Your task to perform on an android device: change the upload size in google photos Image 0: 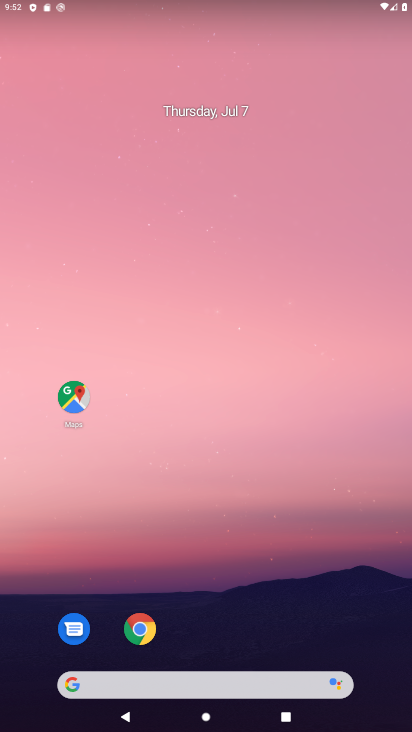
Step 0: drag from (335, 635) to (313, 39)
Your task to perform on an android device: change the upload size in google photos Image 1: 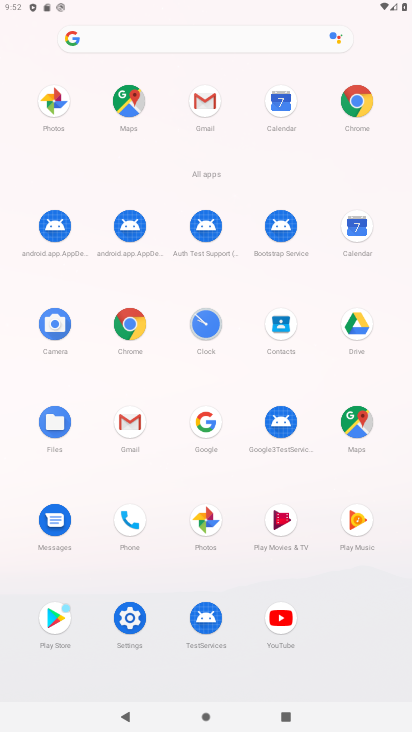
Step 1: click (201, 521)
Your task to perform on an android device: change the upload size in google photos Image 2: 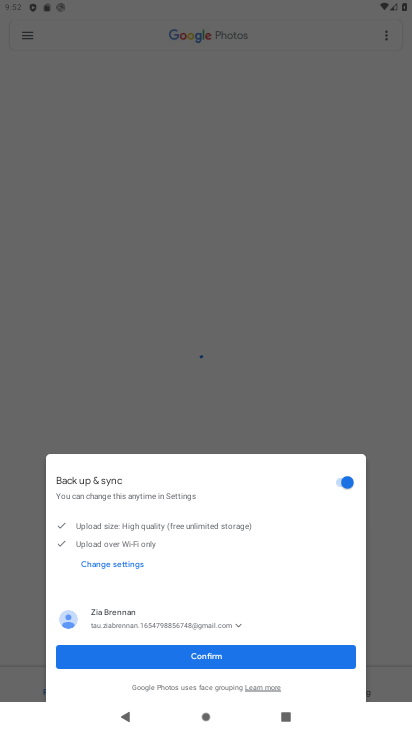
Step 2: click (212, 657)
Your task to perform on an android device: change the upload size in google photos Image 3: 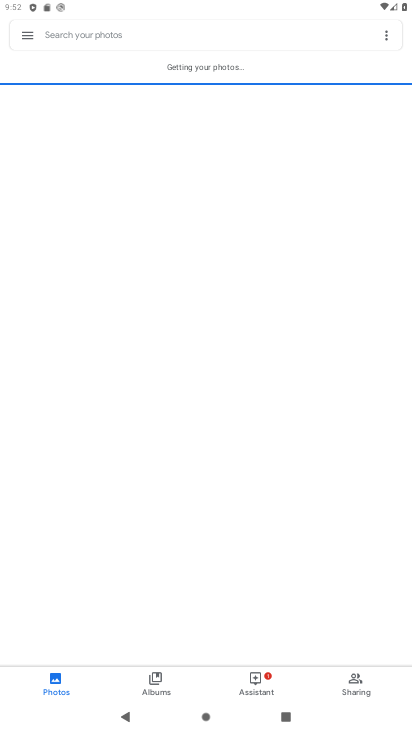
Step 3: click (28, 35)
Your task to perform on an android device: change the upload size in google photos Image 4: 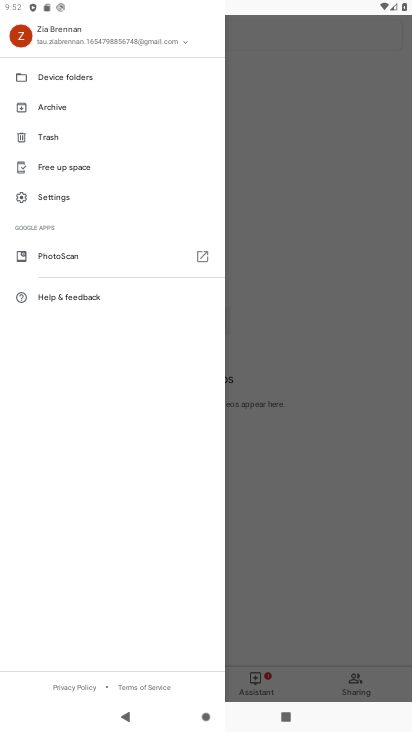
Step 4: click (58, 195)
Your task to perform on an android device: change the upload size in google photos Image 5: 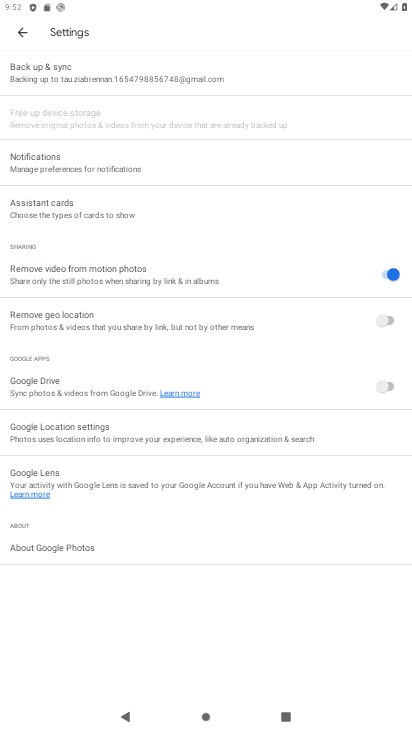
Step 5: click (60, 75)
Your task to perform on an android device: change the upload size in google photos Image 6: 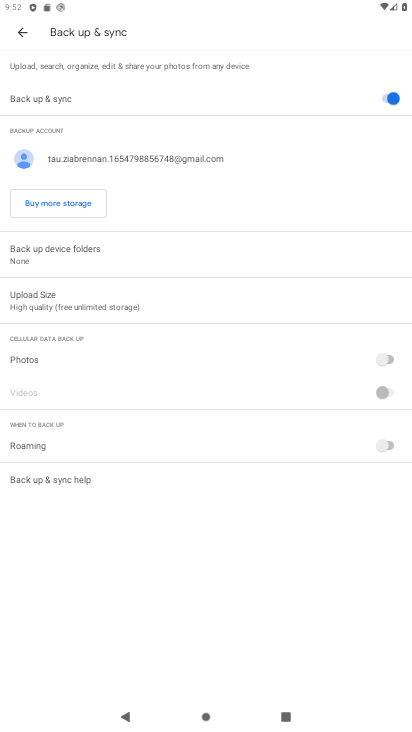
Step 6: click (37, 304)
Your task to perform on an android device: change the upload size in google photos Image 7: 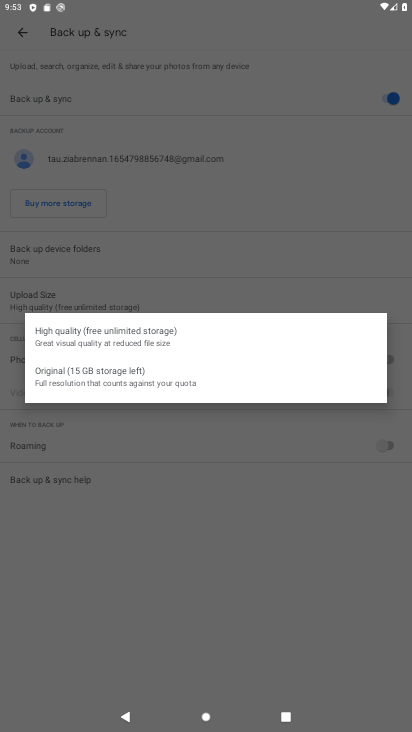
Step 7: click (81, 375)
Your task to perform on an android device: change the upload size in google photos Image 8: 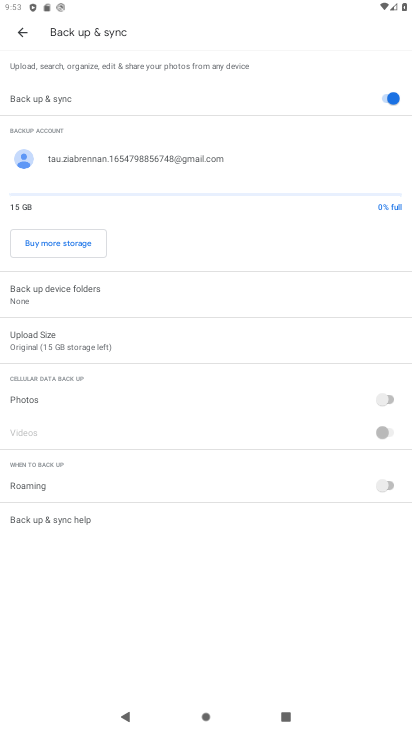
Step 8: task complete